Your task to perform on an android device: read, delete, or share a saved page in the chrome app Image 0: 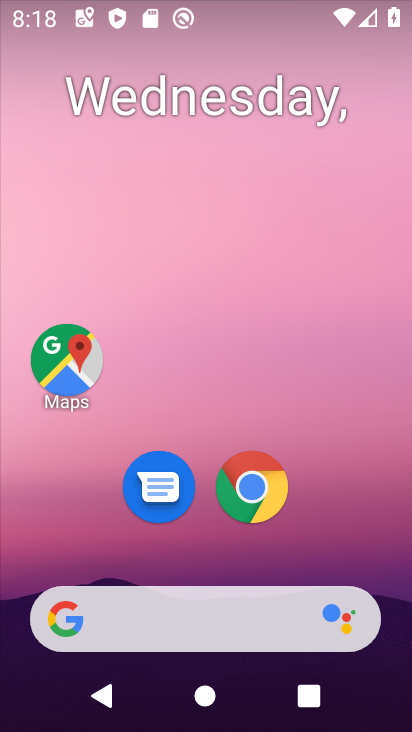
Step 0: drag from (274, 701) to (222, 178)
Your task to perform on an android device: read, delete, or share a saved page in the chrome app Image 1: 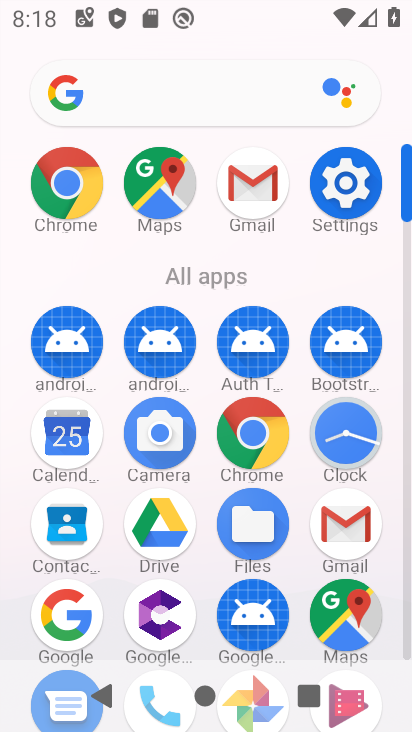
Step 1: click (69, 185)
Your task to perform on an android device: read, delete, or share a saved page in the chrome app Image 2: 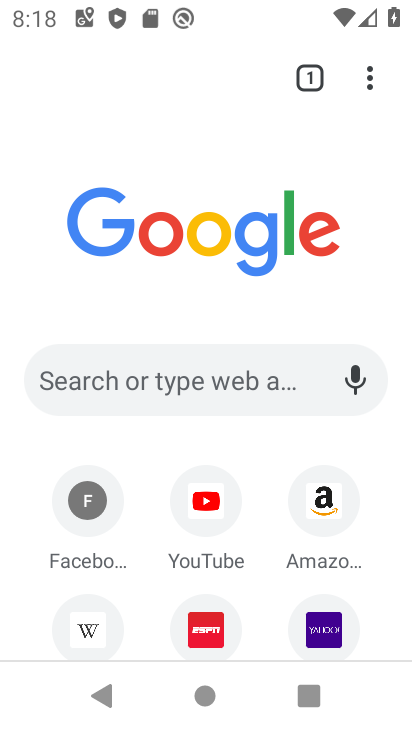
Step 2: drag from (372, 70) to (92, 506)
Your task to perform on an android device: read, delete, or share a saved page in the chrome app Image 3: 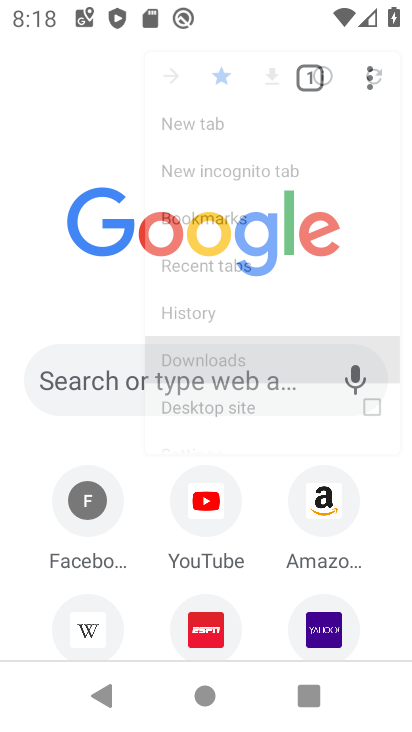
Step 3: click (94, 500)
Your task to perform on an android device: read, delete, or share a saved page in the chrome app Image 4: 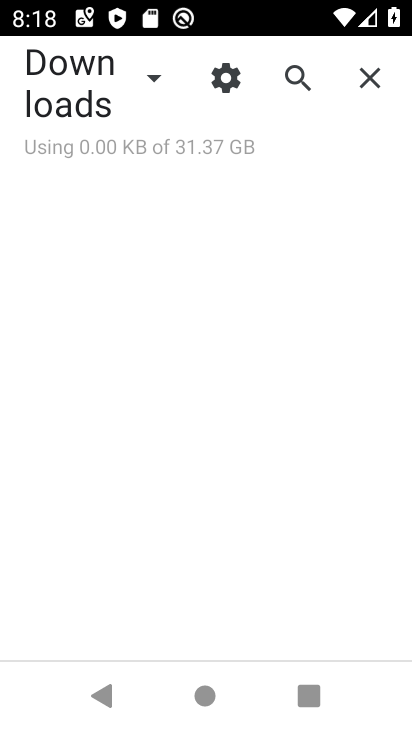
Step 4: task complete